Your task to perform on an android device: Open the phone app and click the voicemail tab. Image 0: 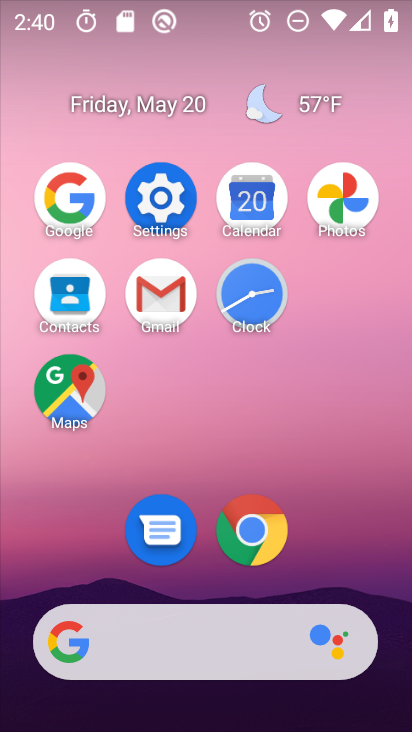
Step 0: drag from (313, 556) to (292, 58)
Your task to perform on an android device: Open the phone app and click the voicemail tab. Image 1: 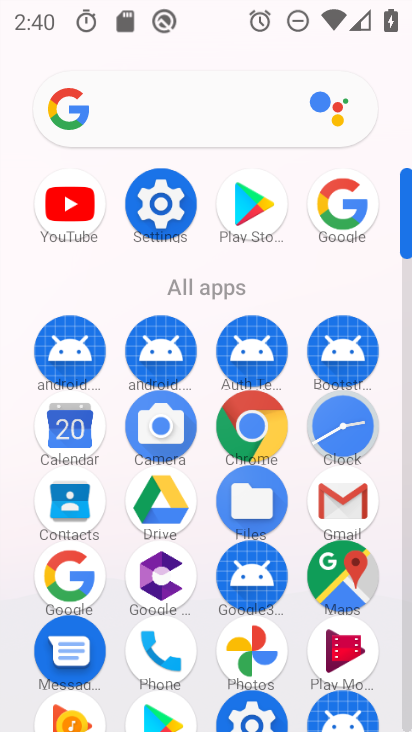
Step 1: click (159, 659)
Your task to perform on an android device: Open the phone app and click the voicemail tab. Image 2: 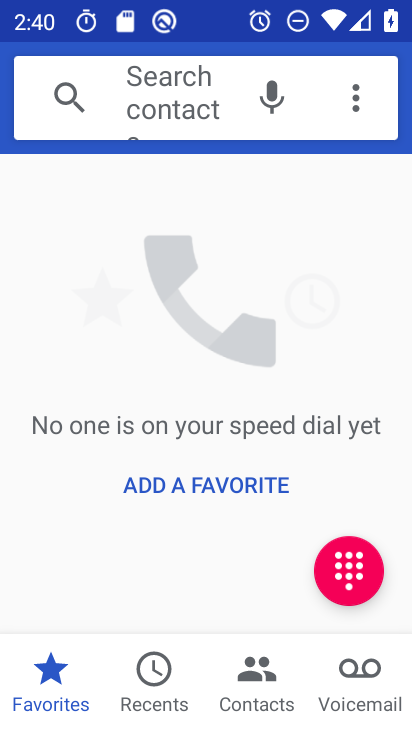
Step 2: click (361, 676)
Your task to perform on an android device: Open the phone app and click the voicemail tab. Image 3: 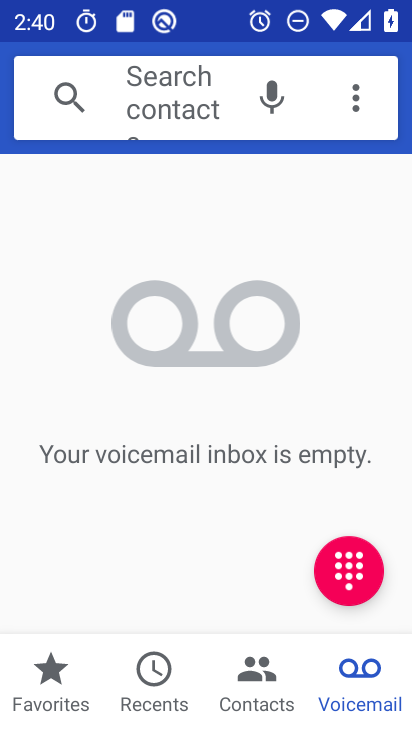
Step 3: task complete